Your task to perform on an android device: Open location settings Image 0: 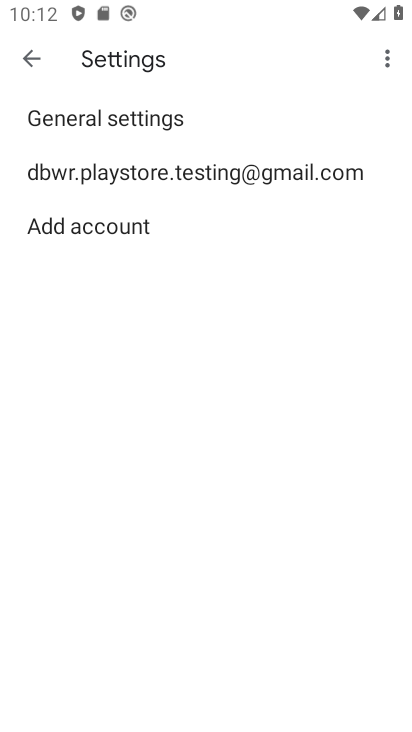
Step 0: press back button
Your task to perform on an android device: Open location settings Image 1: 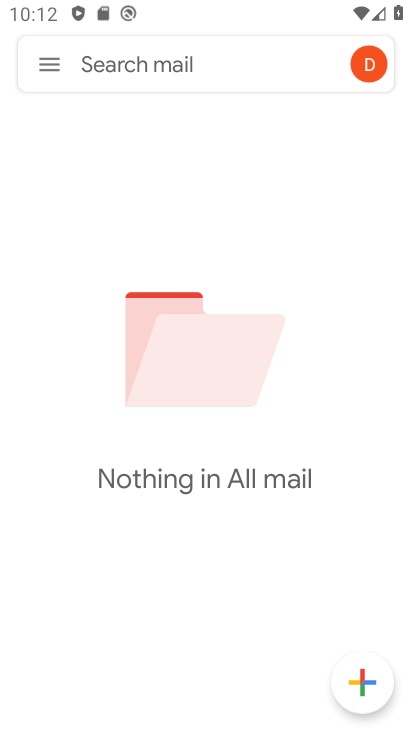
Step 1: press back button
Your task to perform on an android device: Open location settings Image 2: 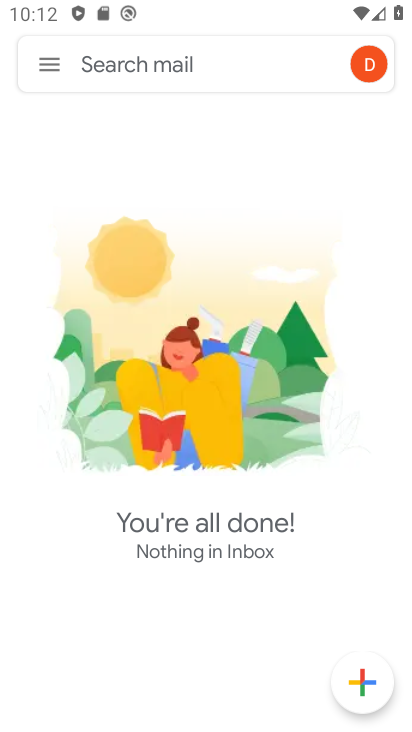
Step 2: press back button
Your task to perform on an android device: Open location settings Image 3: 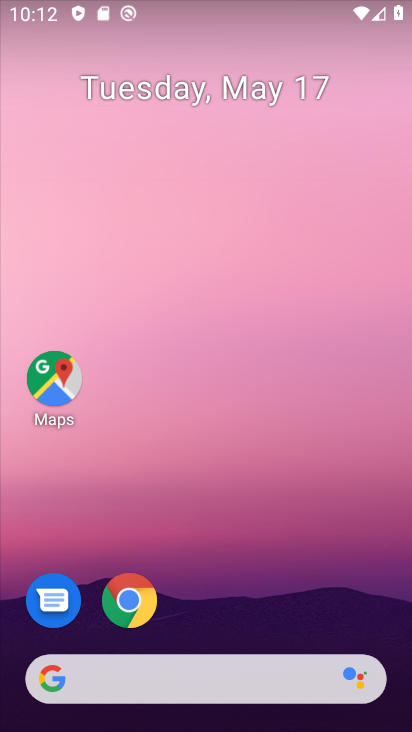
Step 3: drag from (213, 623) to (278, 66)
Your task to perform on an android device: Open location settings Image 4: 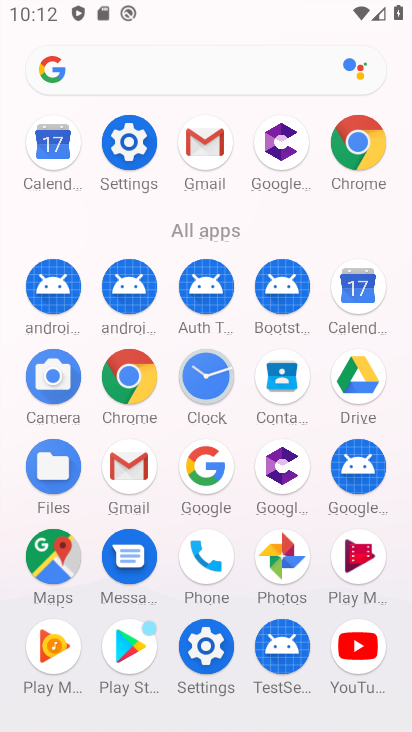
Step 4: click (150, 132)
Your task to perform on an android device: Open location settings Image 5: 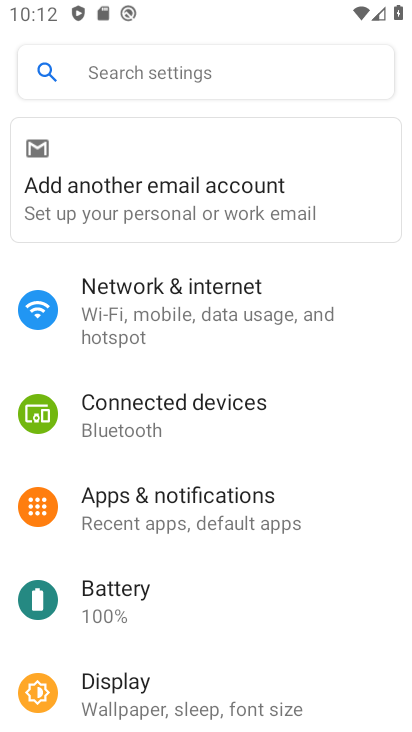
Step 5: drag from (188, 649) to (280, 190)
Your task to perform on an android device: Open location settings Image 6: 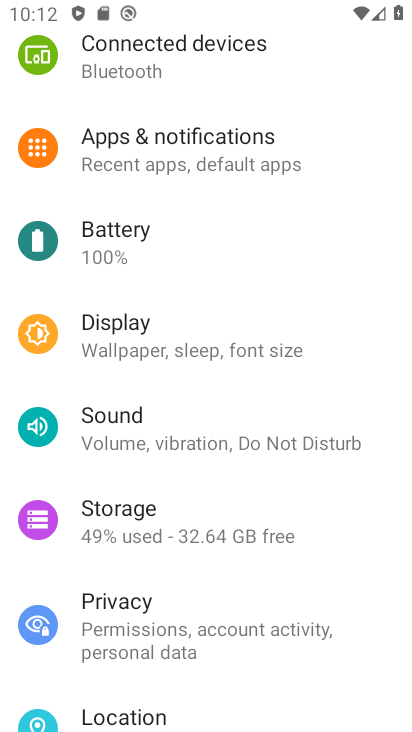
Step 6: click (210, 724)
Your task to perform on an android device: Open location settings Image 7: 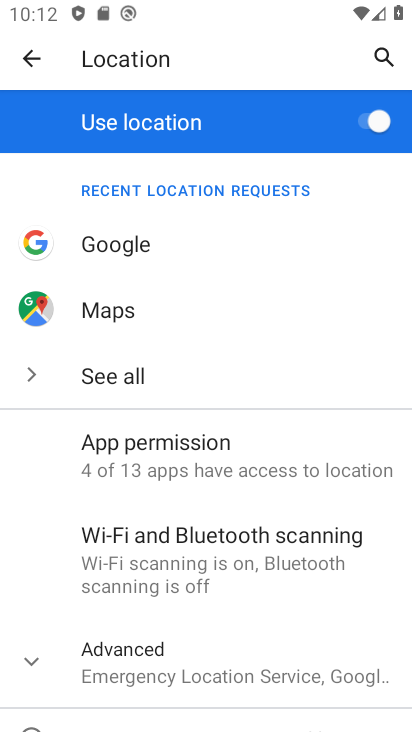
Step 7: task complete